Your task to perform on an android device: uninstall "File Manager" Image 0: 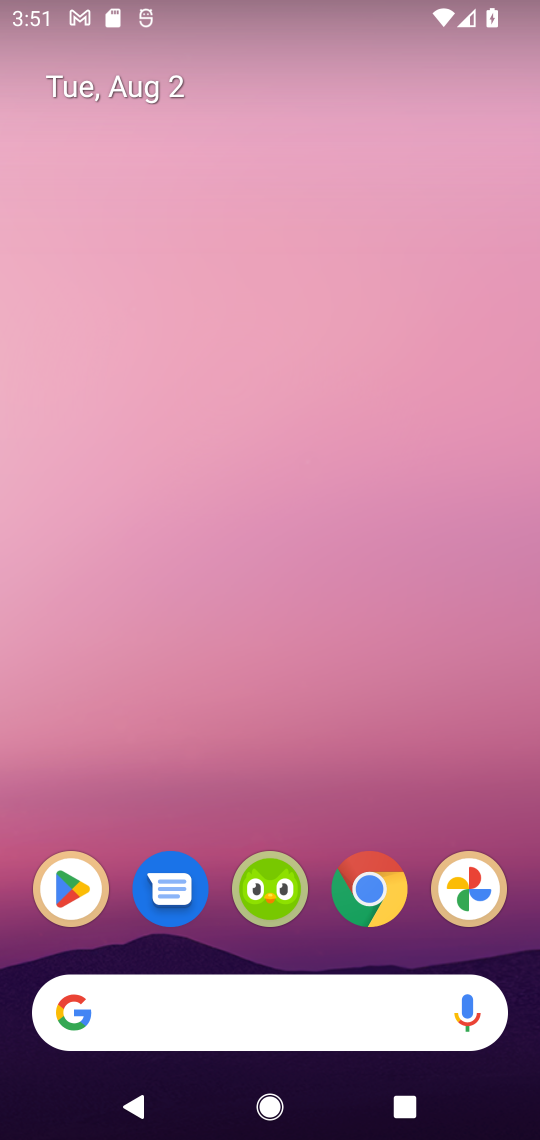
Step 0: press home button
Your task to perform on an android device: uninstall "File Manager" Image 1: 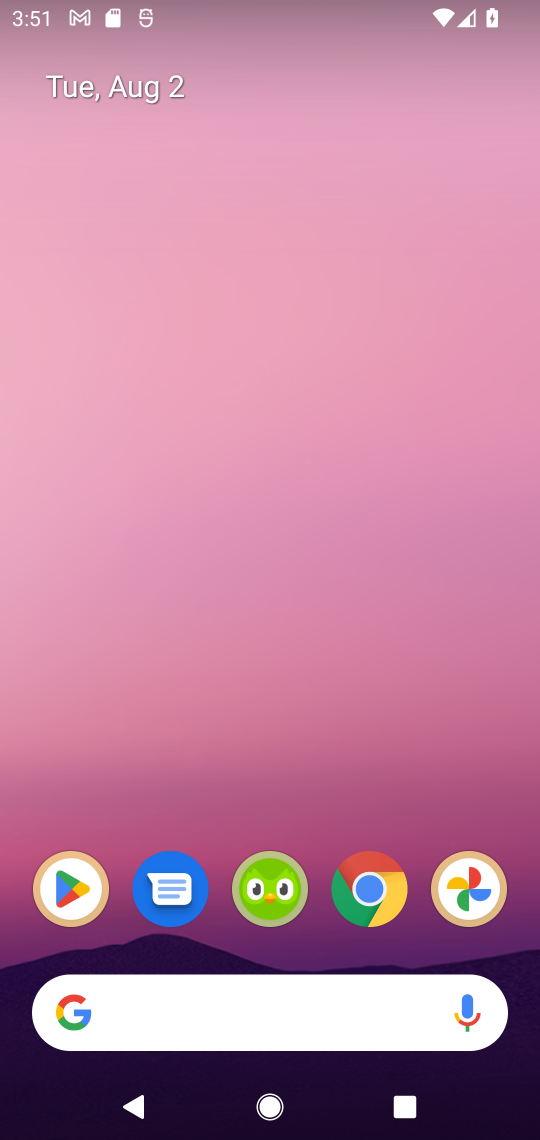
Step 1: drag from (391, 620) to (421, 64)
Your task to perform on an android device: uninstall "File Manager" Image 2: 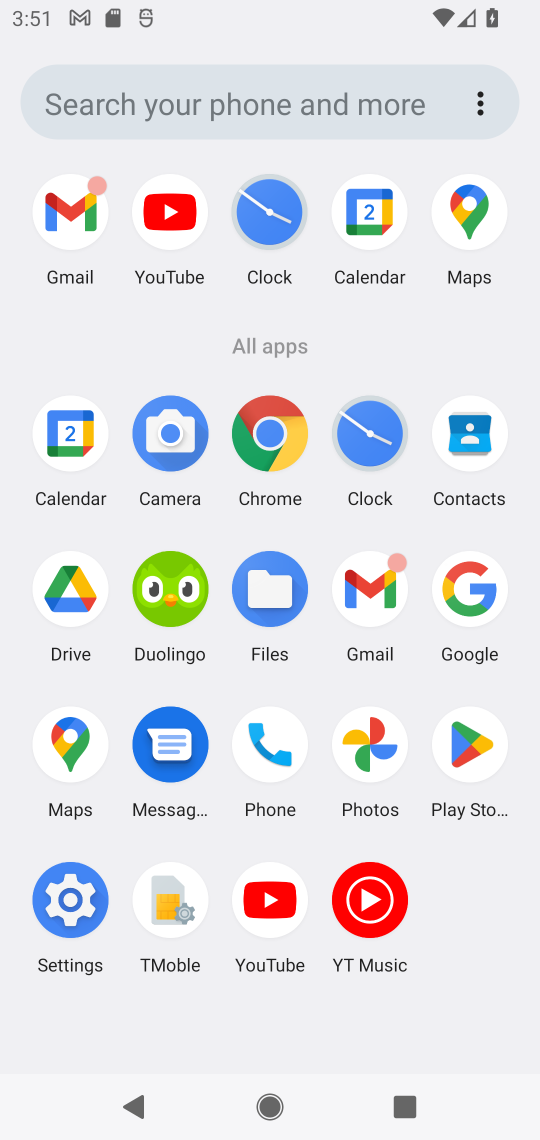
Step 2: click (474, 756)
Your task to perform on an android device: uninstall "File Manager" Image 3: 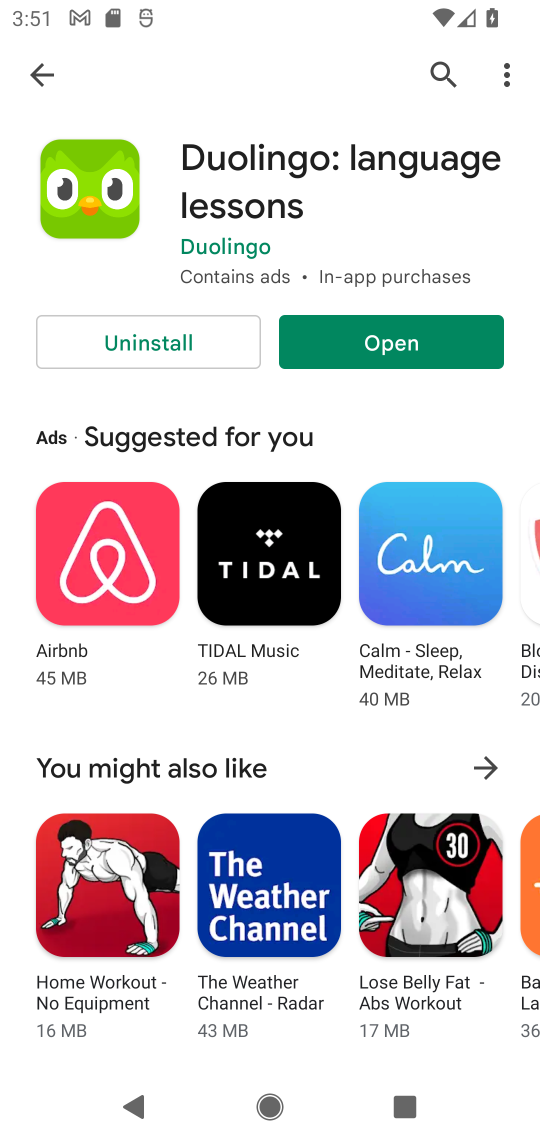
Step 3: click (442, 73)
Your task to perform on an android device: uninstall "File Manager" Image 4: 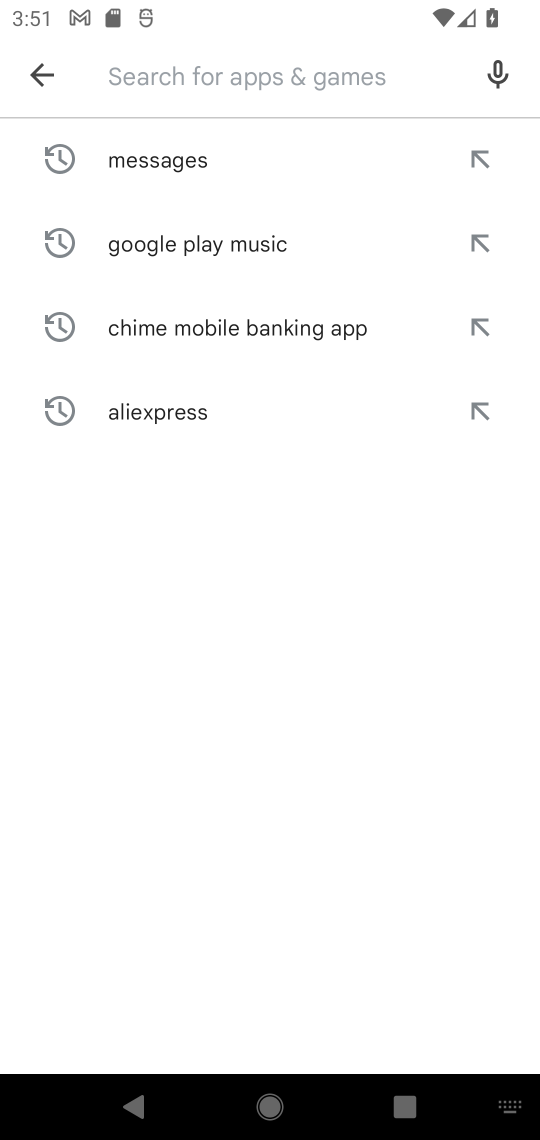
Step 4: type "file manager"
Your task to perform on an android device: uninstall "File Manager" Image 5: 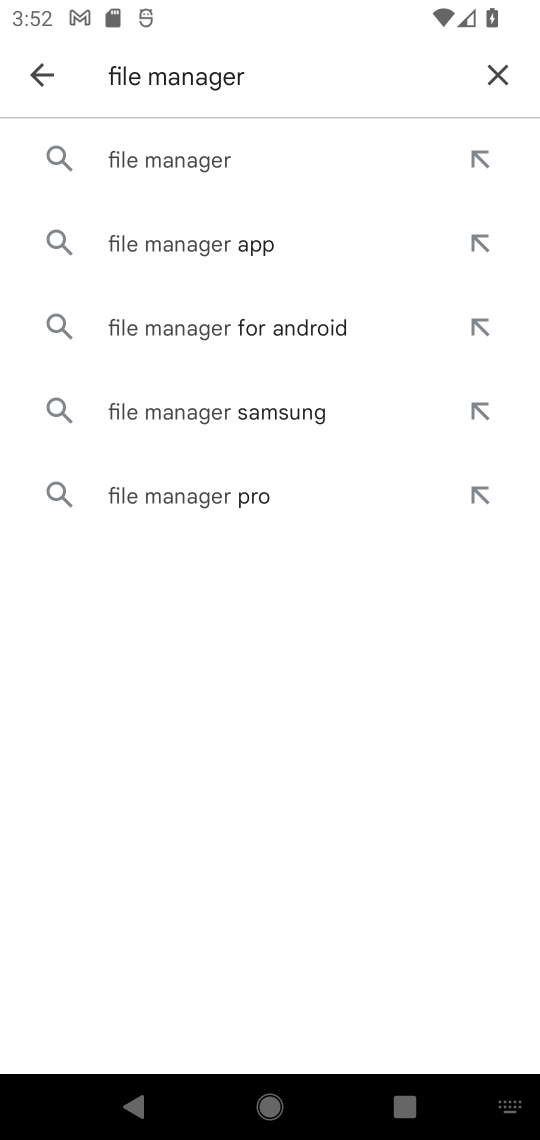
Step 5: click (229, 165)
Your task to perform on an android device: uninstall "File Manager" Image 6: 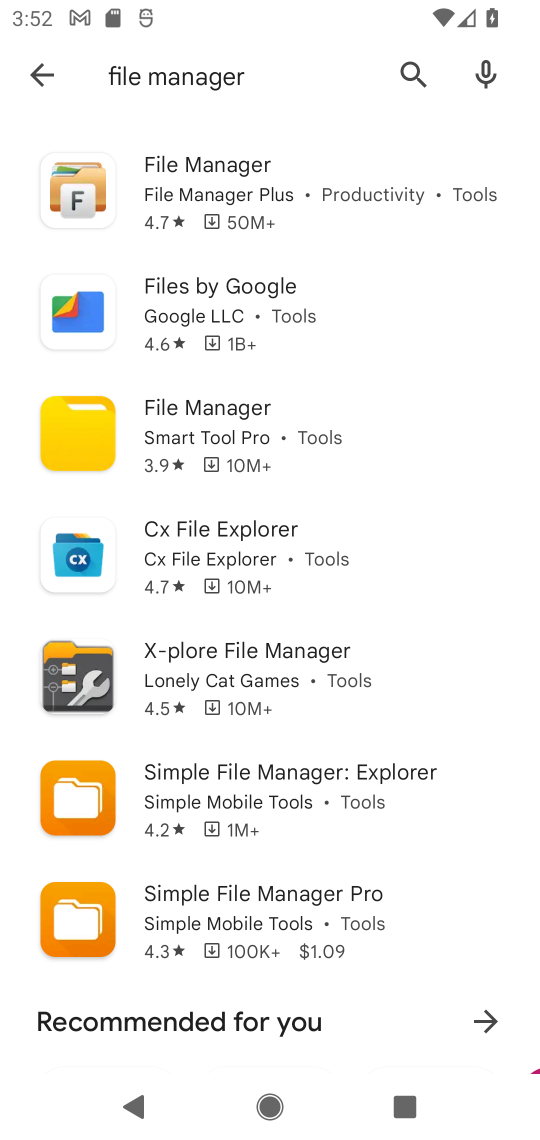
Step 6: task complete